Your task to perform on an android device: Add logitech g pro to the cart on ebay, then select checkout. Image 0: 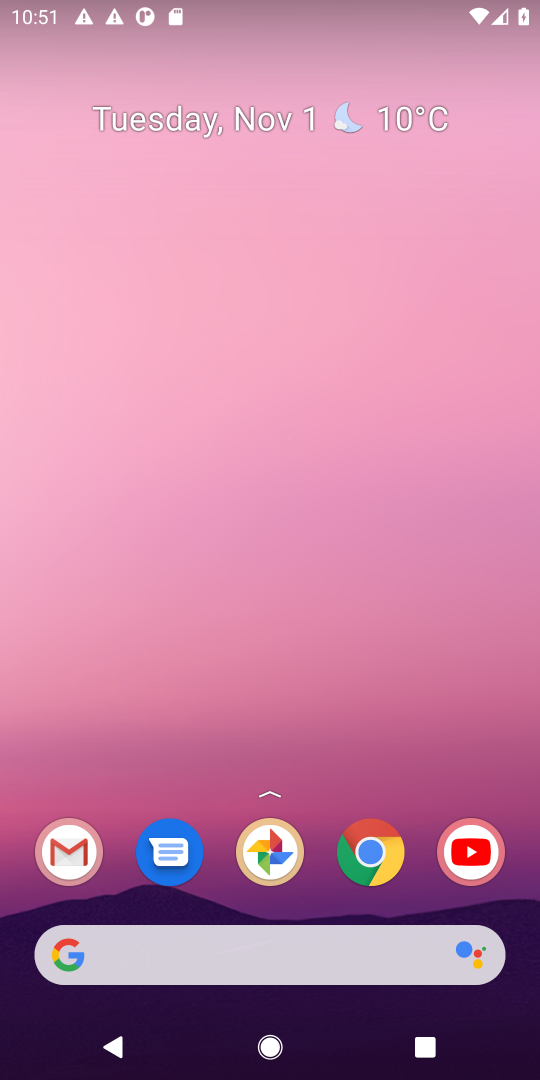
Step 0: press home button
Your task to perform on an android device: Add logitech g pro to the cart on ebay, then select checkout. Image 1: 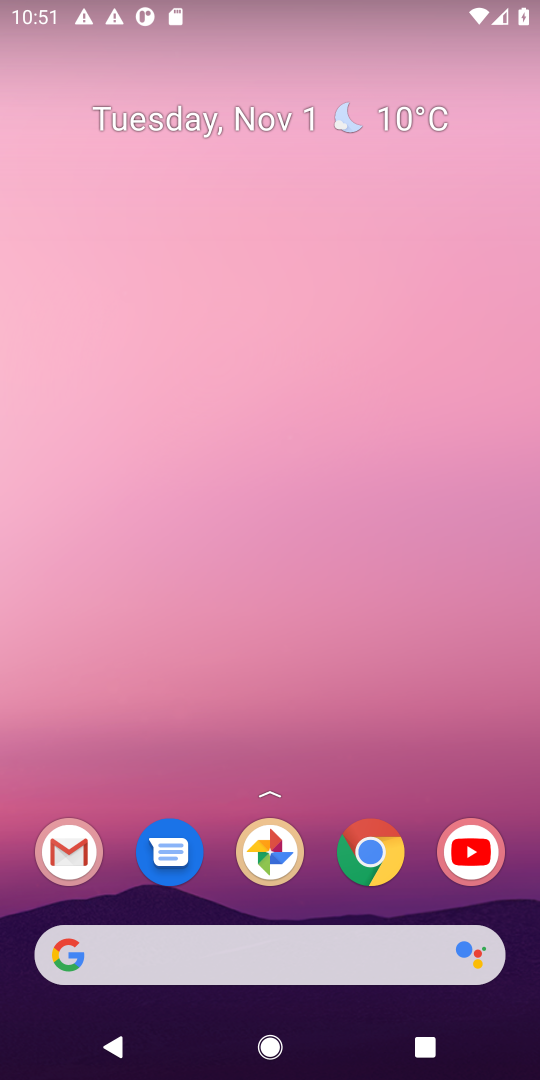
Step 1: click (59, 948)
Your task to perform on an android device: Add logitech g pro to the cart on ebay, then select checkout. Image 2: 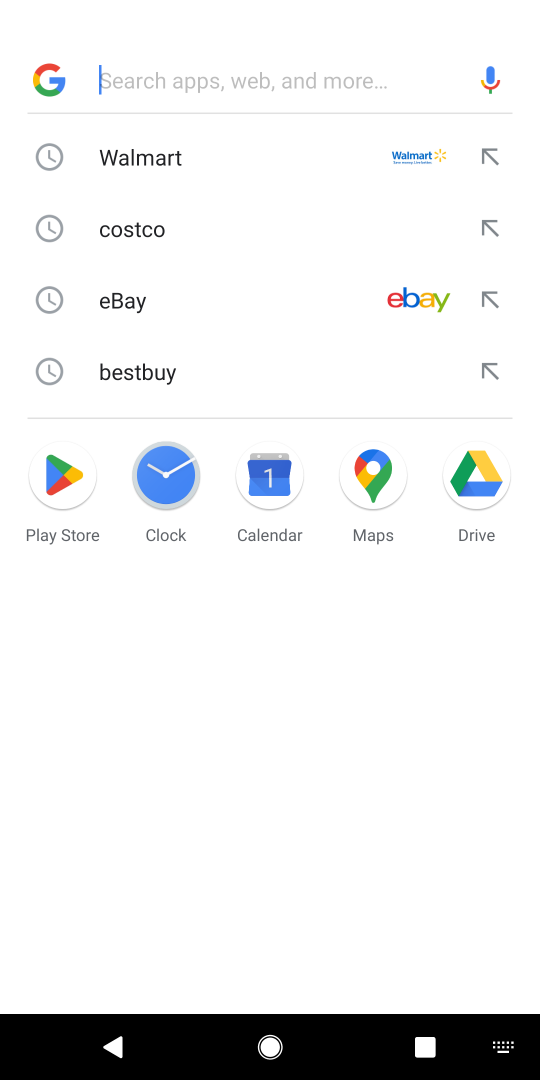
Step 2: click (404, 289)
Your task to perform on an android device: Add logitech g pro to the cart on ebay, then select checkout. Image 3: 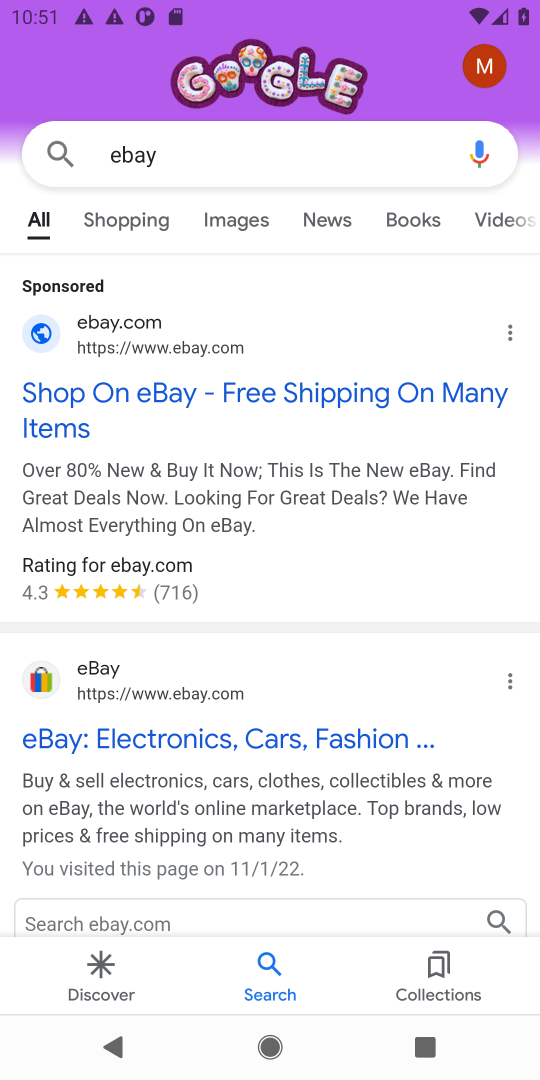
Step 3: click (127, 744)
Your task to perform on an android device: Add logitech g pro to the cart on ebay, then select checkout. Image 4: 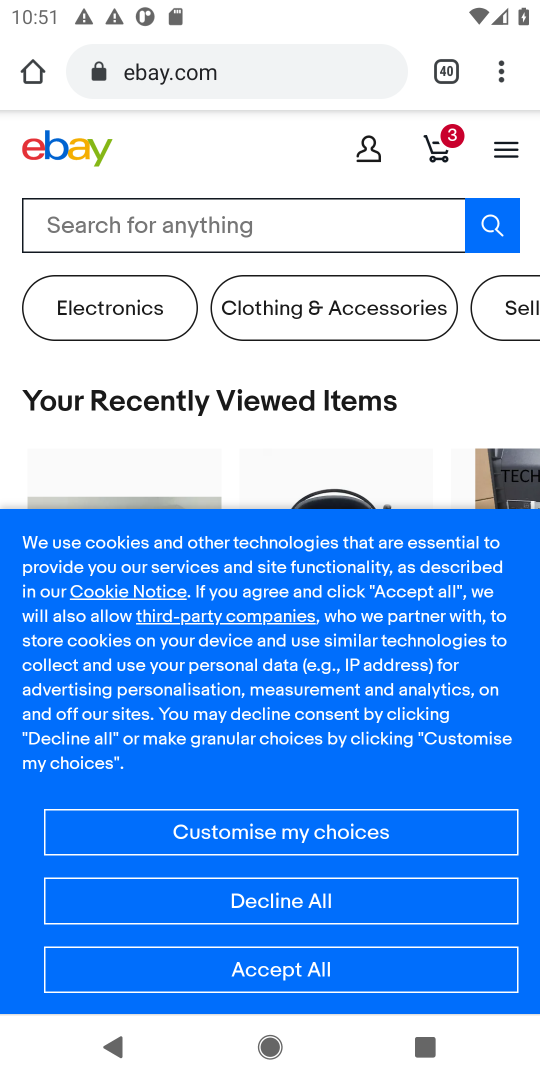
Step 4: type "logitech g pro"
Your task to perform on an android device: Add logitech g pro to the cart on ebay, then select checkout. Image 5: 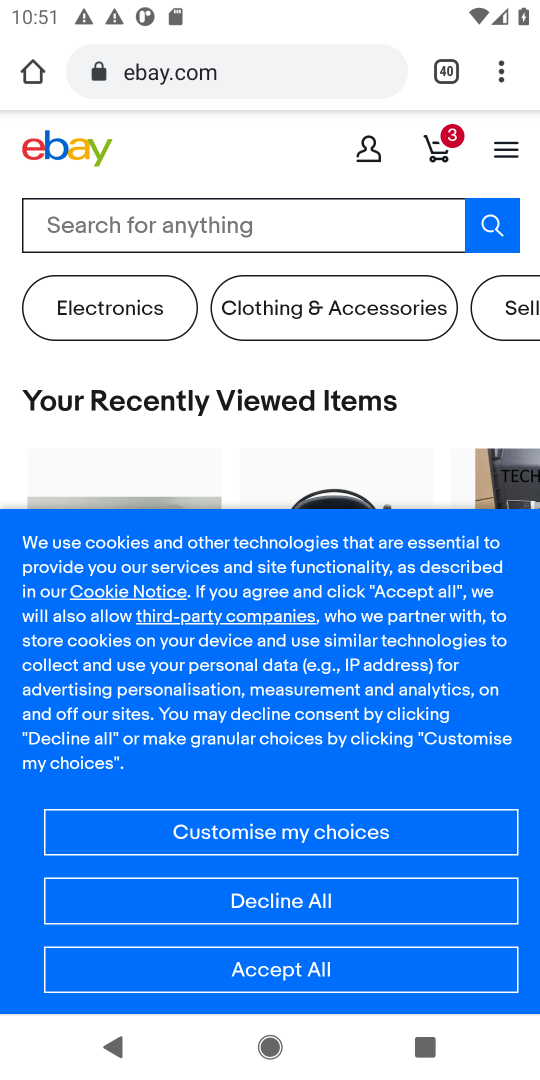
Step 5: click (205, 227)
Your task to perform on an android device: Add logitech g pro to the cart on ebay, then select checkout. Image 6: 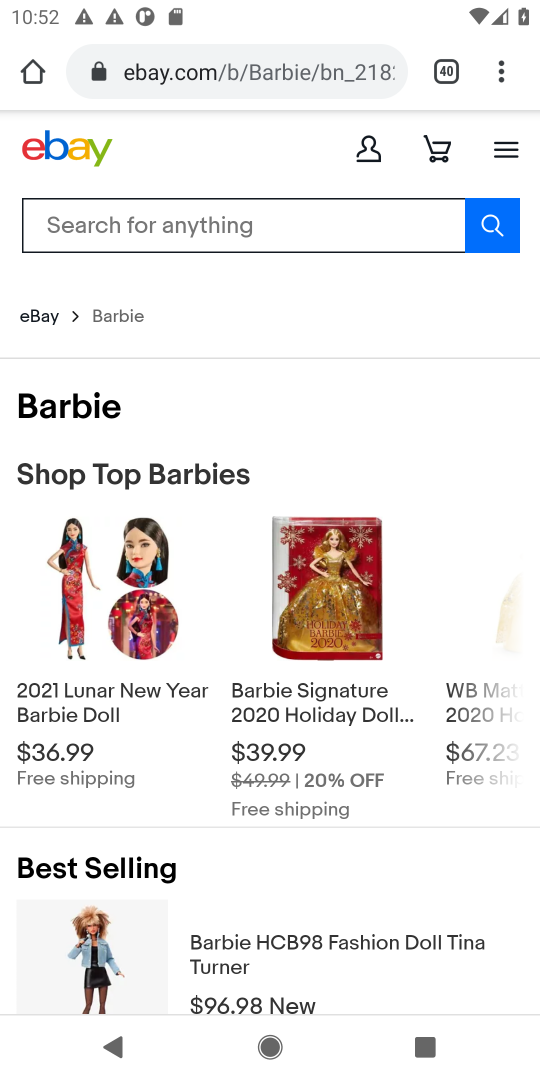
Step 6: click (224, 226)
Your task to perform on an android device: Add logitech g pro to the cart on ebay, then select checkout. Image 7: 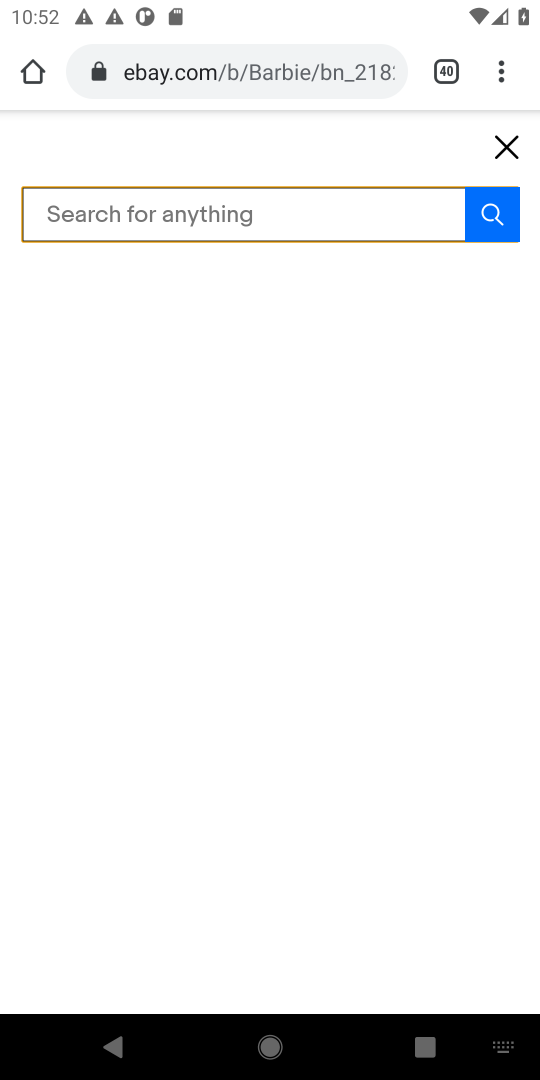
Step 7: type "logitech g pro"
Your task to perform on an android device: Add logitech g pro to the cart on ebay, then select checkout. Image 8: 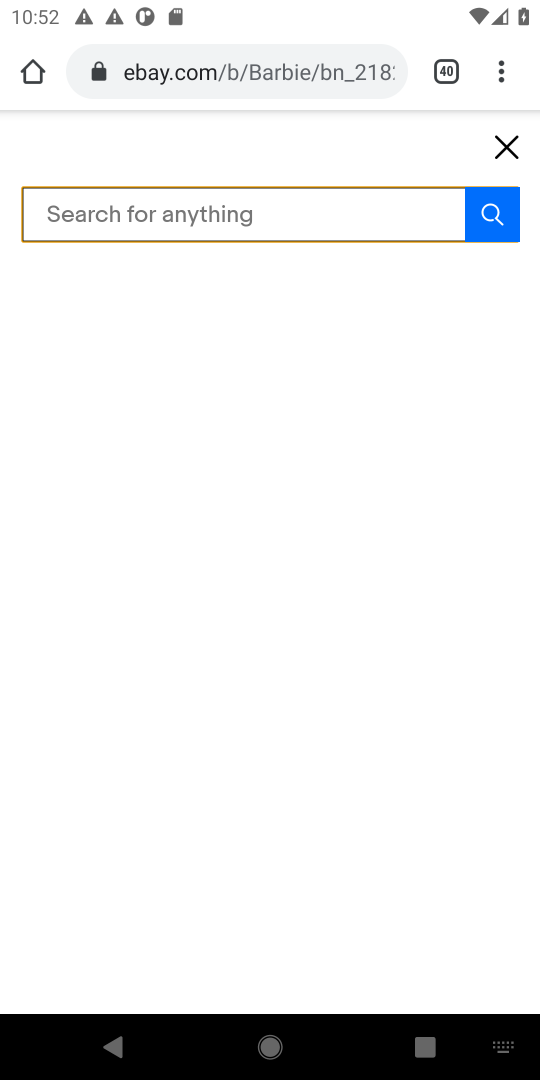
Step 8: click (149, 215)
Your task to perform on an android device: Add logitech g pro to the cart on ebay, then select checkout. Image 9: 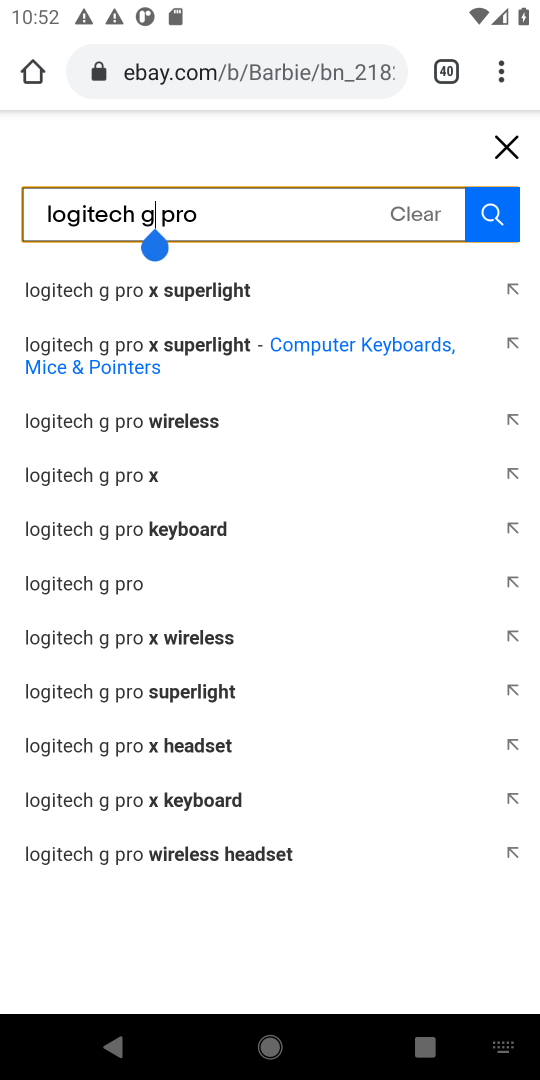
Step 9: press enter
Your task to perform on an android device: Add logitech g pro to the cart on ebay, then select checkout. Image 10: 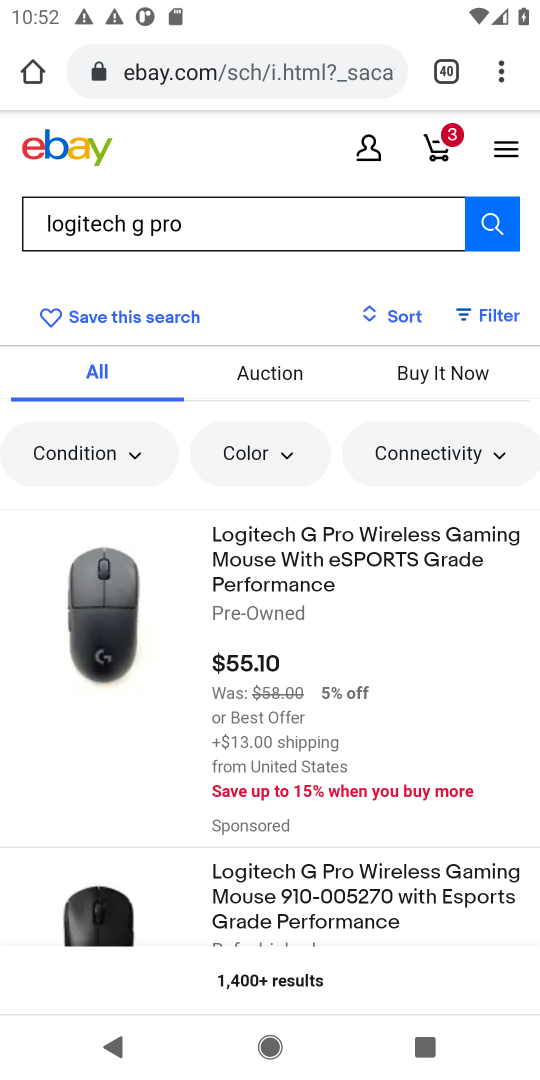
Step 10: click (429, 540)
Your task to perform on an android device: Add logitech g pro to the cart on ebay, then select checkout. Image 11: 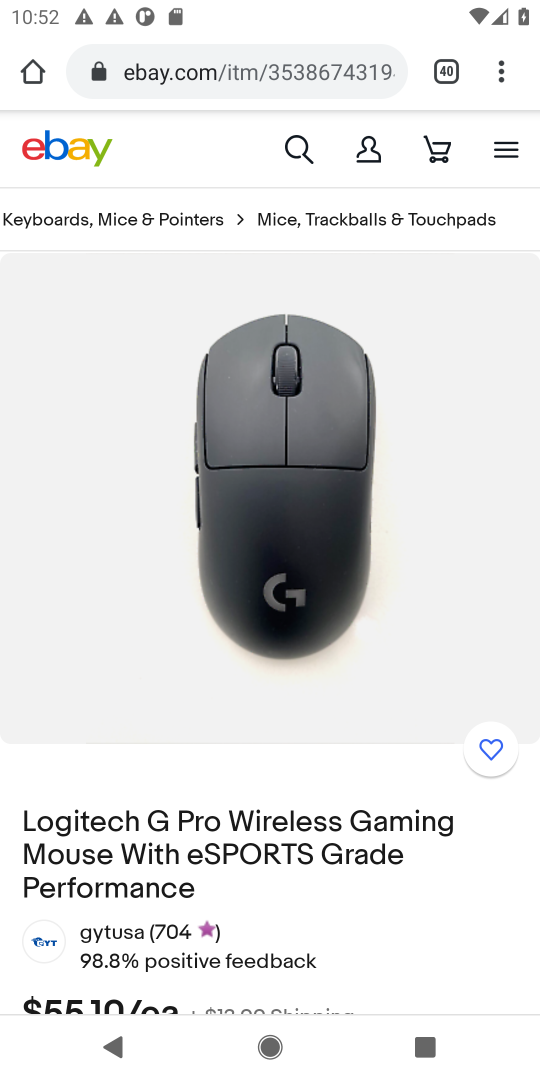
Step 11: drag from (468, 920) to (397, 312)
Your task to perform on an android device: Add logitech g pro to the cart on ebay, then select checkout. Image 12: 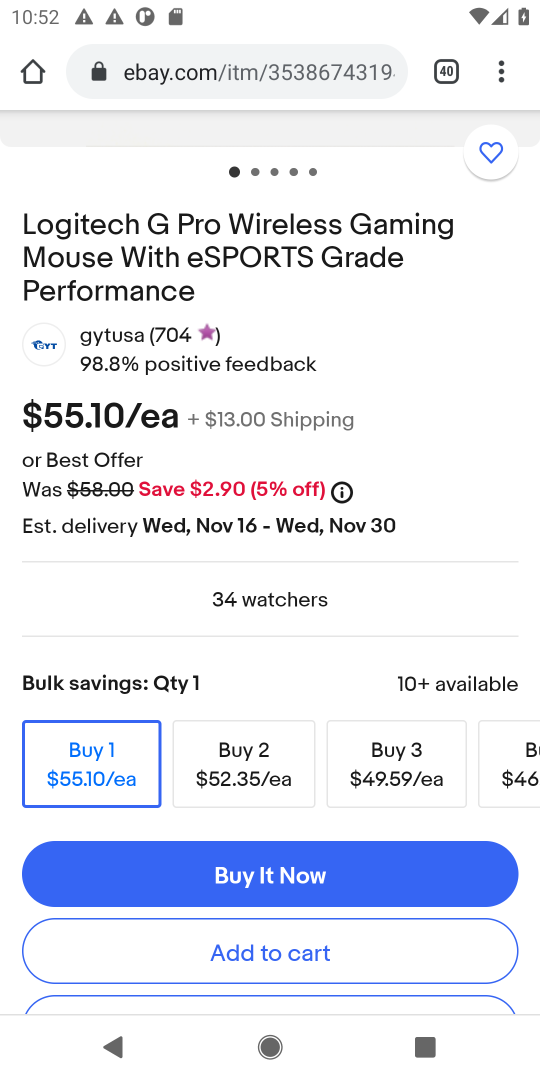
Step 12: click (290, 952)
Your task to perform on an android device: Add logitech g pro to the cart on ebay, then select checkout. Image 13: 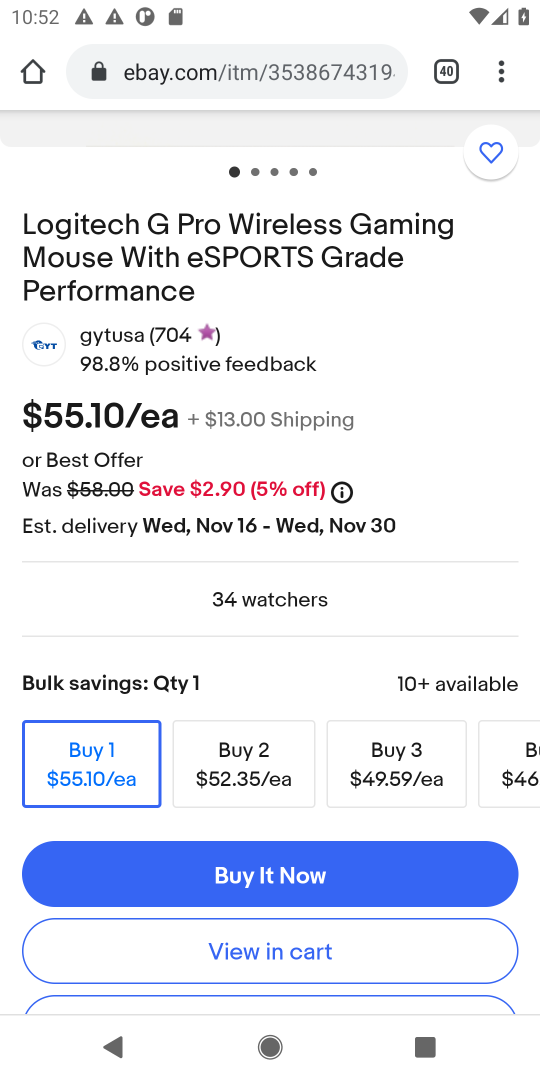
Step 13: click (268, 954)
Your task to perform on an android device: Add logitech g pro to the cart on ebay, then select checkout. Image 14: 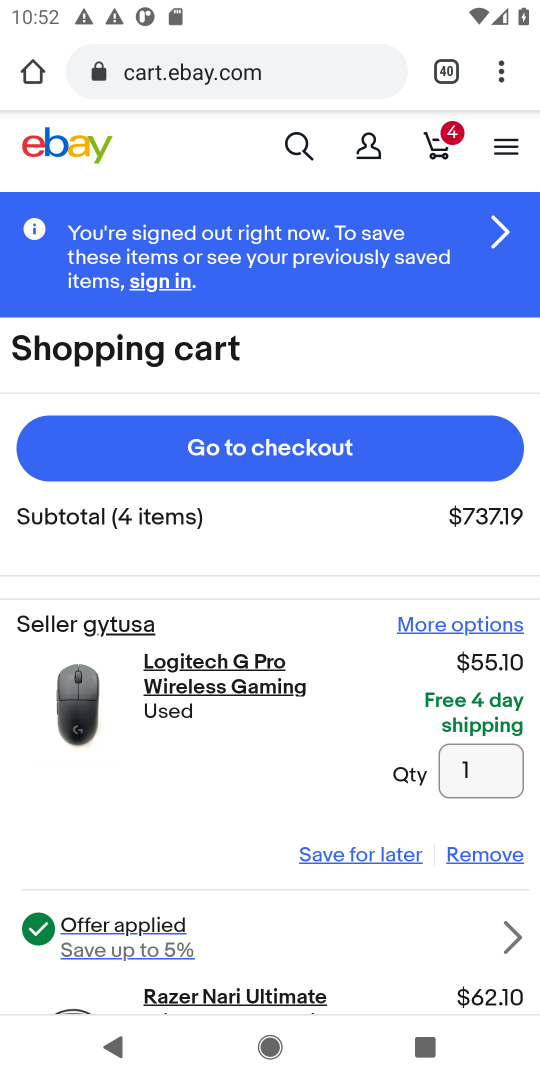
Step 14: click (258, 457)
Your task to perform on an android device: Add logitech g pro to the cart on ebay, then select checkout. Image 15: 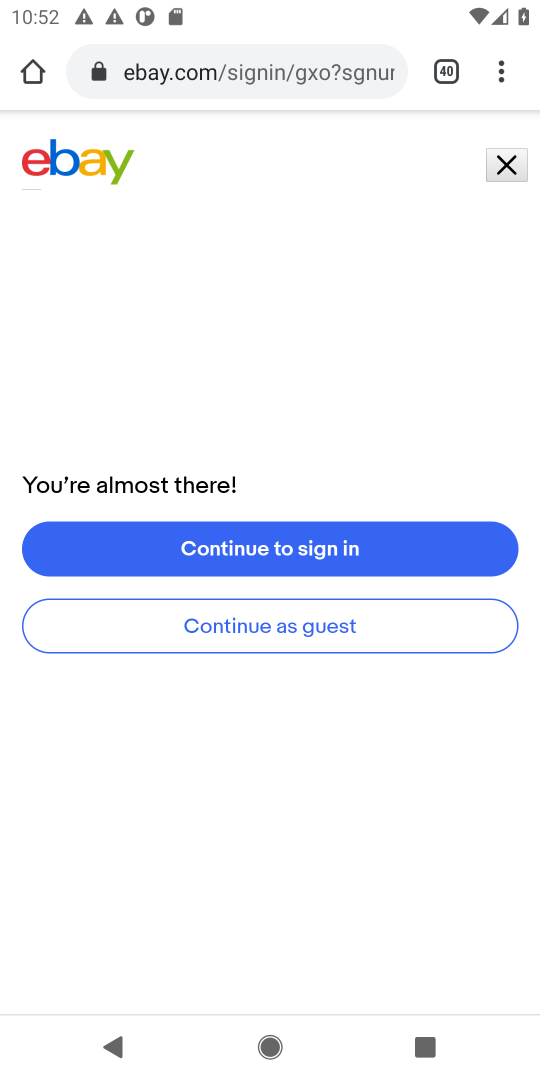
Step 15: task complete